Your task to perform on an android device: delete location history Image 0: 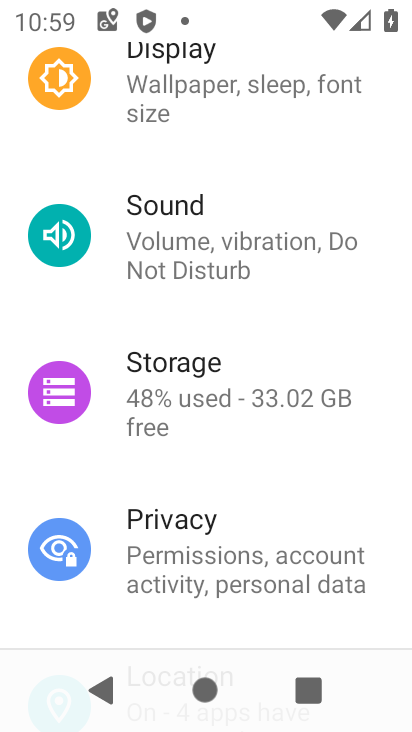
Step 0: click (260, 440)
Your task to perform on an android device: delete location history Image 1: 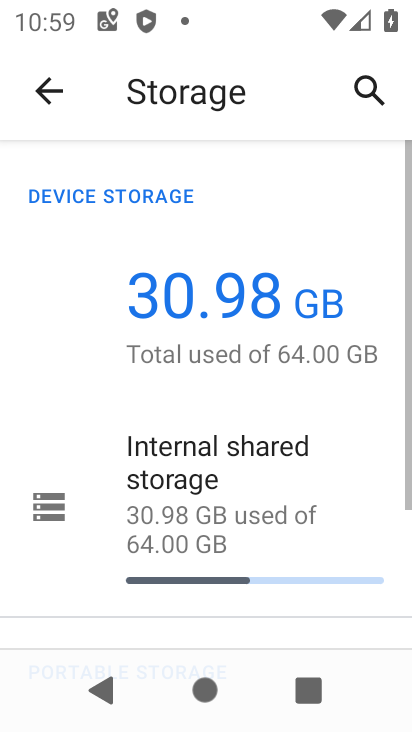
Step 1: drag from (260, 398) to (286, 14)
Your task to perform on an android device: delete location history Image 2: 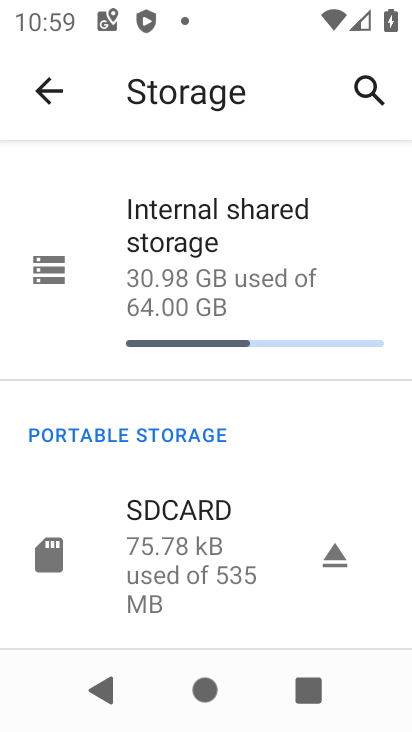
Step 2: press back button
Your task to perform on an android device: delete location history Image 3: 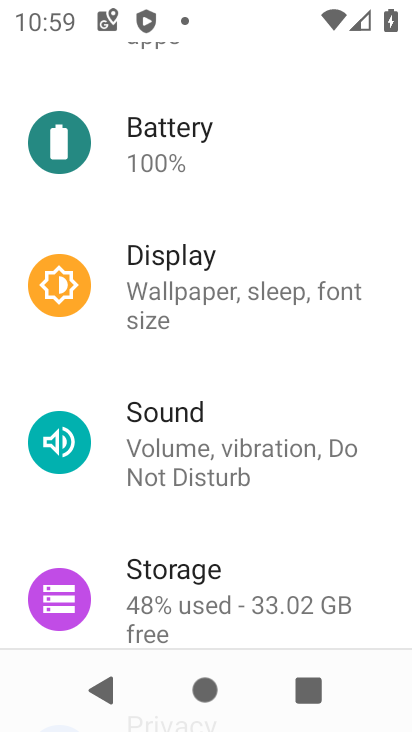
Step 3: press back button
Your task to perform on an android device: delete location history Image 4: 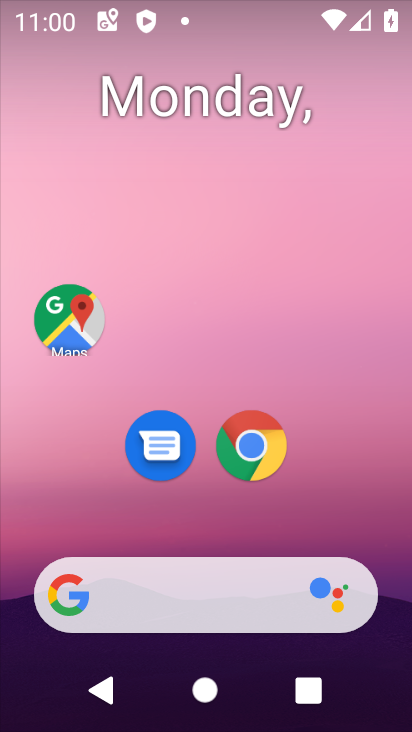
Step 4: drag from (204, 513) to (257, 27)
Your task to perform on an android device: delete location history Image 5: 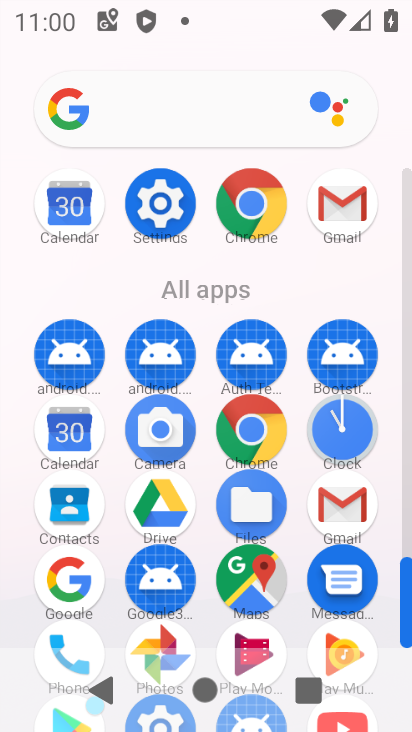
Step 5: click (158, 207)
Your task to perform on an android device: delete location history Image 6: 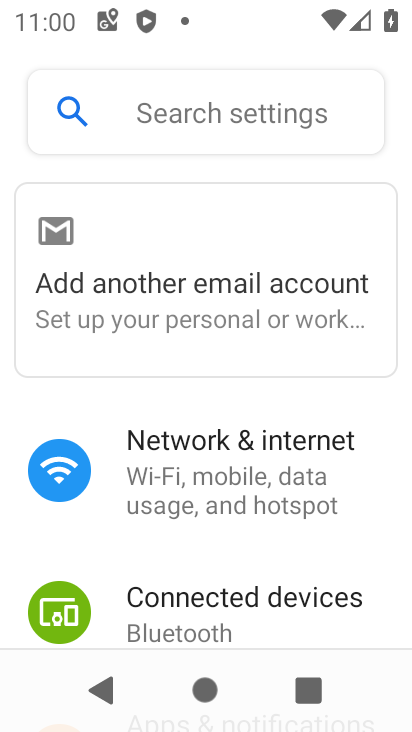
Step 6: drag from (196, 538) to (243, 104)
Your task to perform on an android device: delete location history Image 7: 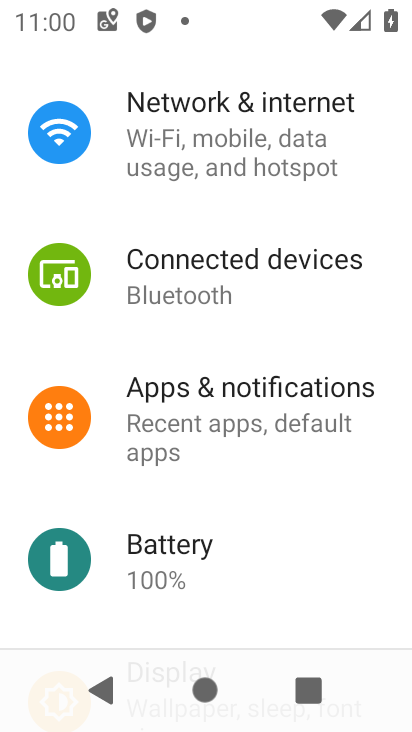
Step 7: drag from (217, 555) to (287, 54)
Your task to perform on an android device: delete location history Image 8: 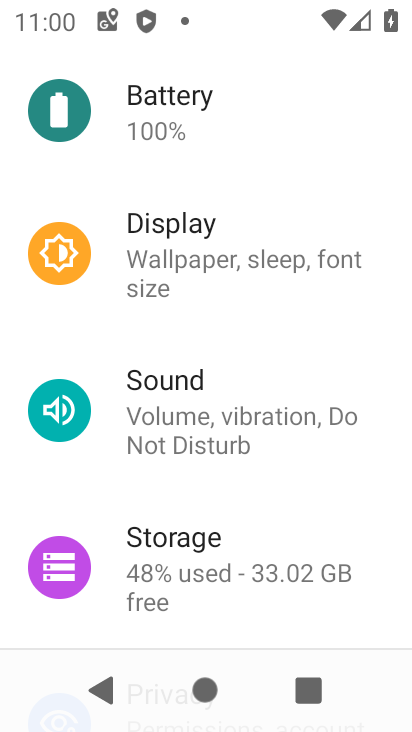
Step 8: drag from (179, 573) to (255, 47)
Your task to perform on an android device: delete location history Image 9: 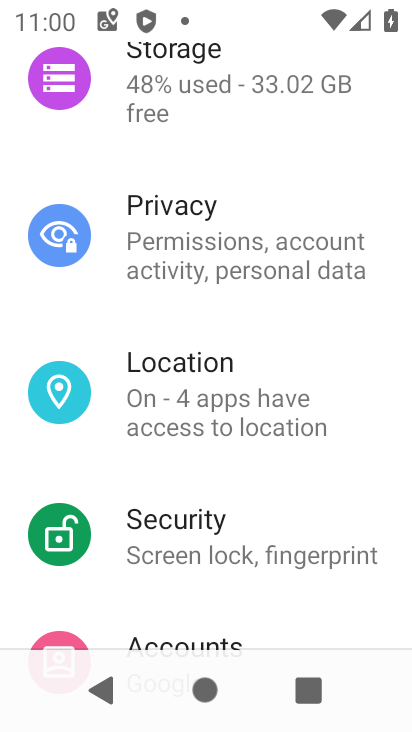
Step 9: click (187, 392)
Your task to perform on an android device: delete location history Image 10: 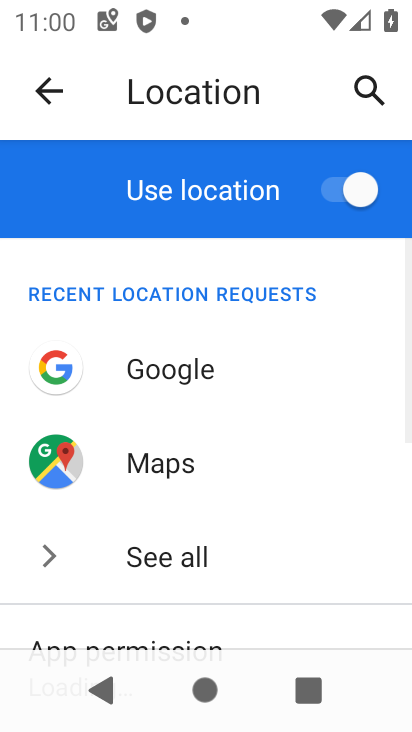
Step 10: drag from (156, 539) to (249, 143)
Your task to perform on an android device: delete location history Image 11: 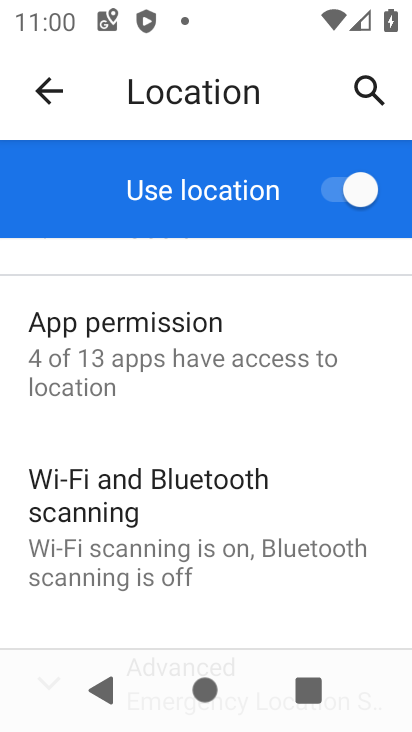
Step 11: drag from (292, 595) to (294, 96)
Your task to perform on an android device: delete location history Image 12: 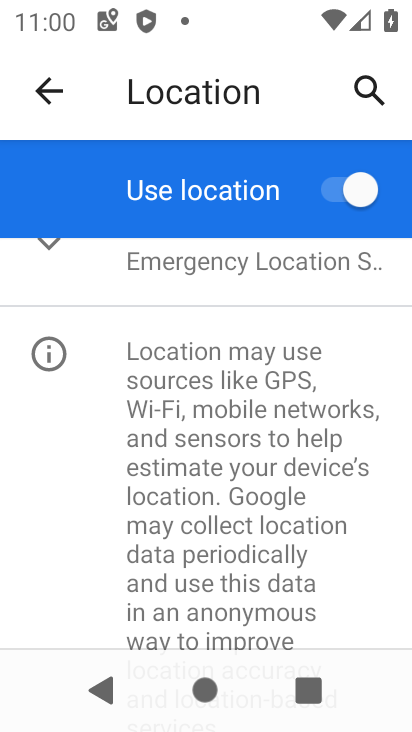
Step 12: click (209, 276)
Your task to perform on an android device: delete location history Image 13: 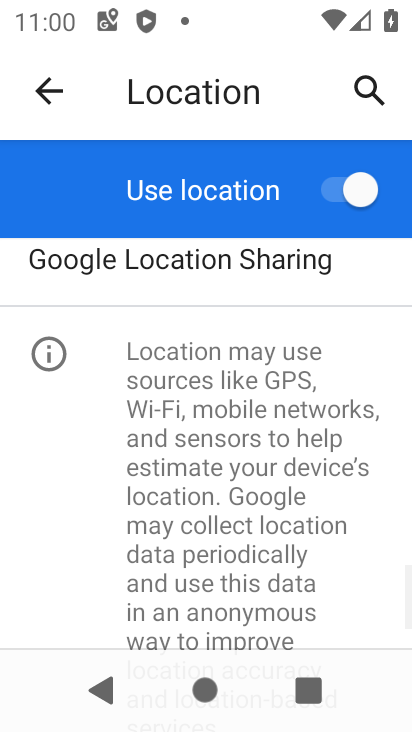
Step 13: drag from (233, 312) to (217, 555)
Your task to perform on an android device: delete location history Image 14: 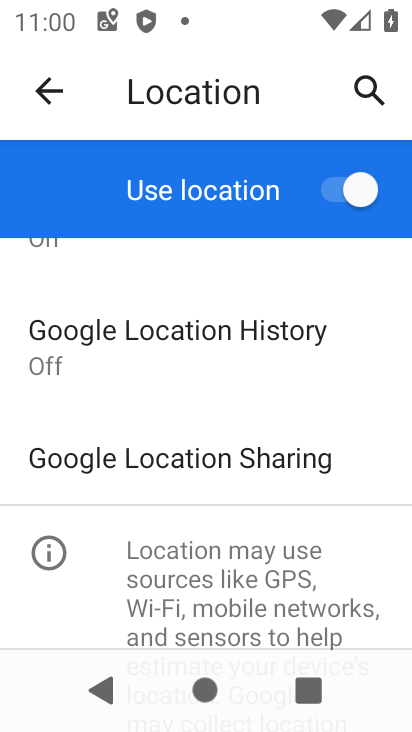
Step 14: drag from (187, 364) to (186, 585)
Your task to perform on an android device: delete location history Image 15: 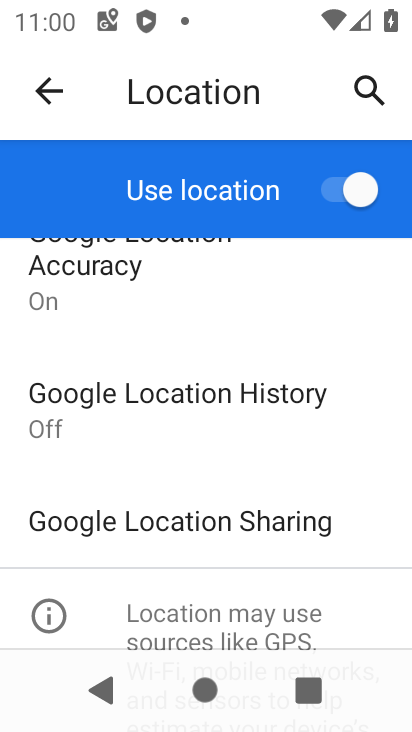
Step 15: click (140, 399)
Your task to perform on an android device: delete location history Image 16: 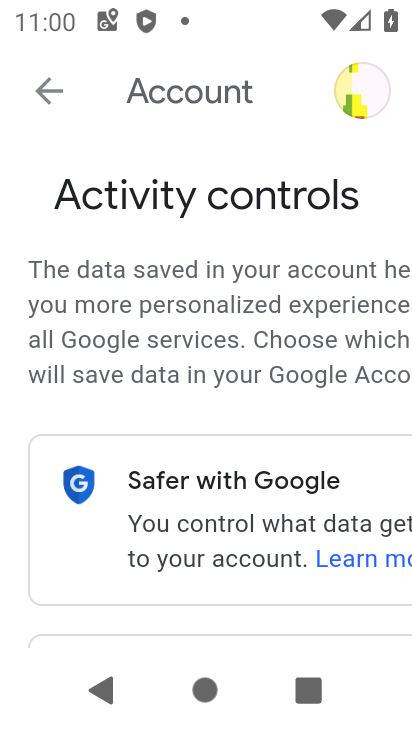
Step 16: task complete